Your task to perform on an android device: Open Chrome and go to the settings page Image 0: 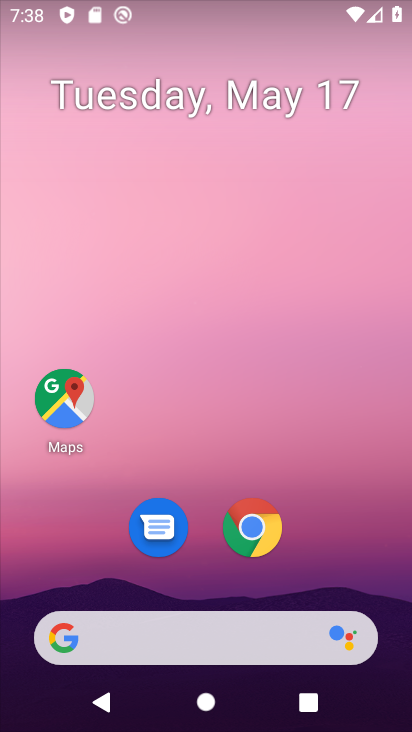
Step 0: drag from (249, 646) to (241, 128)
Your task to perform on an android device: Open Chrome and go to the settings page Image 1: 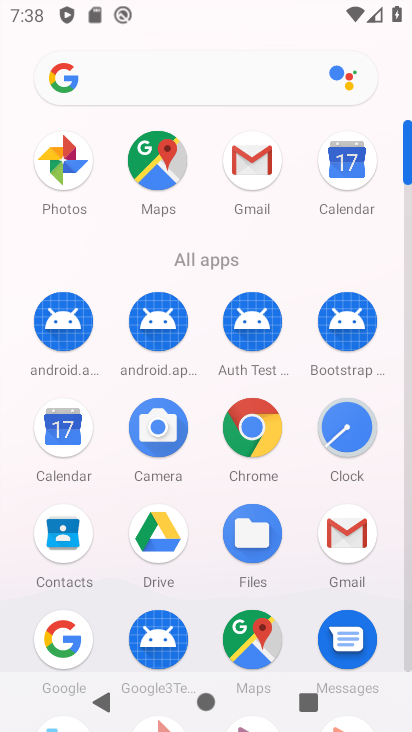
Step 1: click (243, 419)
Your task to perform on an android device: Open Chrome and go to the settings page Image 2: 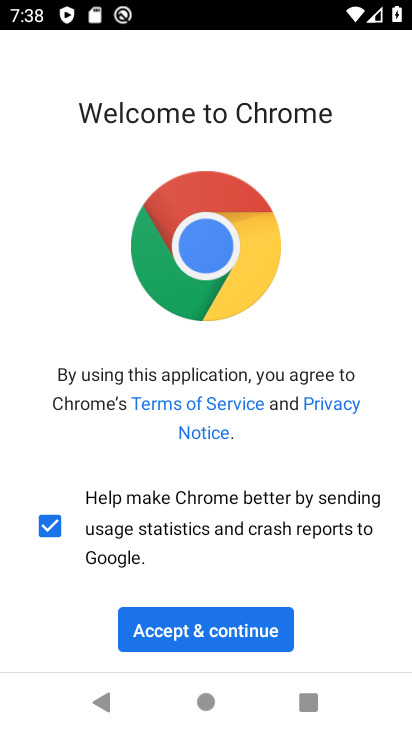
Step 2: click (159, 614)
Your task to perform on an android device: Open Chrome and go to the settings page Image 3: 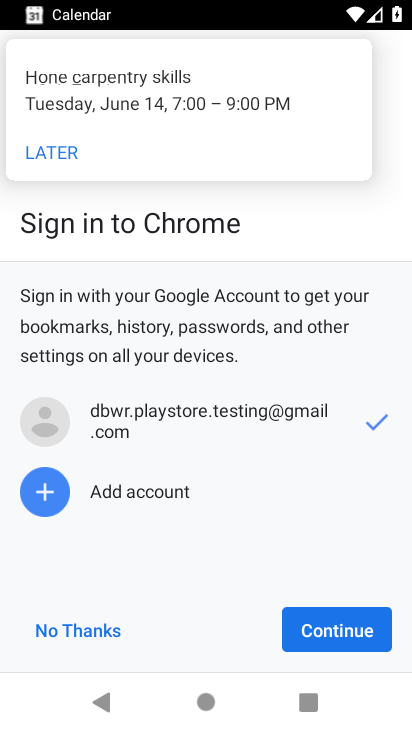
Step 3: click (328, 616)
Your task to perform on an android device: Open Chrome and go to the settings page Image 4: 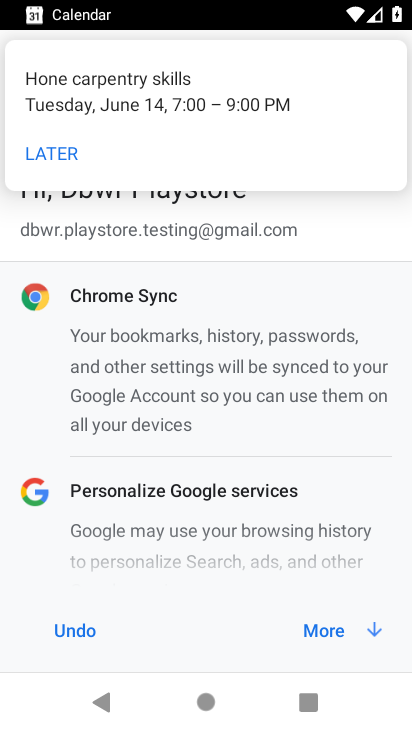
Step 4: click (325, 616)
Your task to perform on an android device: Open Chrome and go to the settings page Image 5: 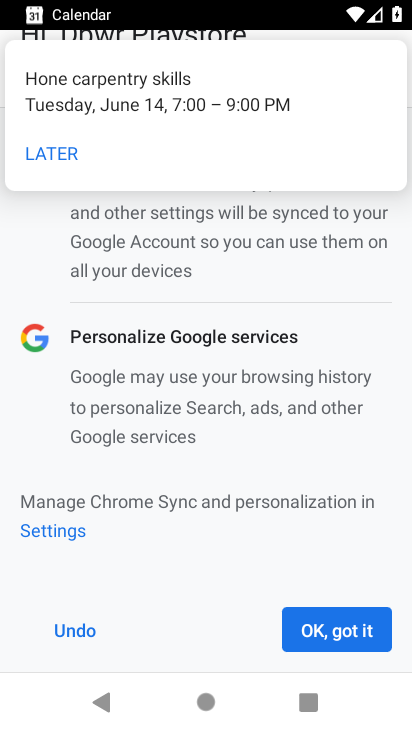
Step 5: click (377, 614)
Your task to perform on an android device: Open Chrome and go to the settings page Image 6: 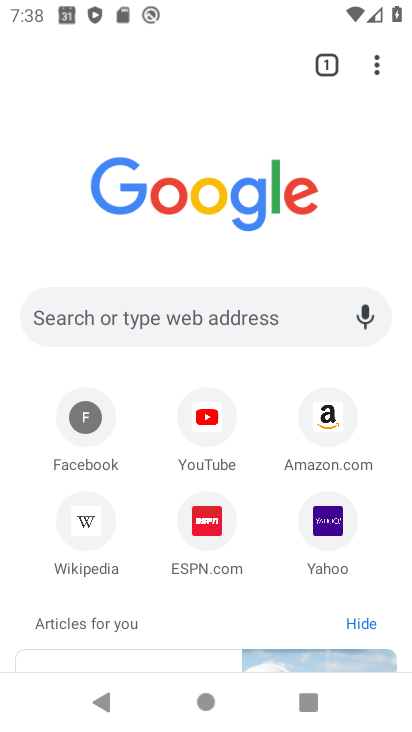
Step 6: click (365, 81)
Your task to perform on an android device: Open Chrome and go to the settings page Image 7: 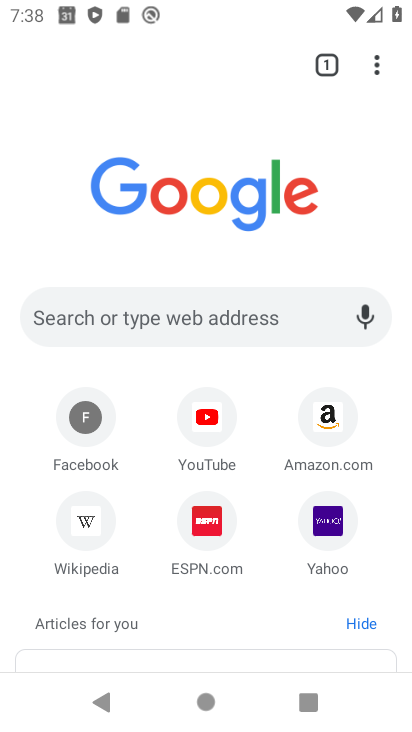
Step 7: click (375, 79)
Your task to perform on an android device: Open Chrome and go to the settings page Image 8: 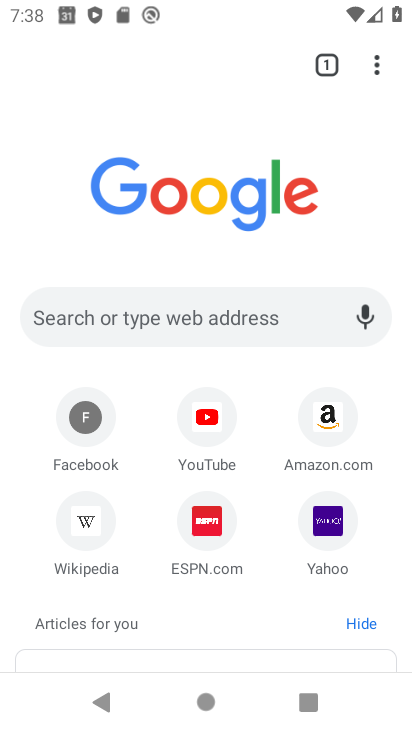
Step 8: click (366, 71)
Your task to perform on an android device: Open Chrome and go to the settings page Image 9: 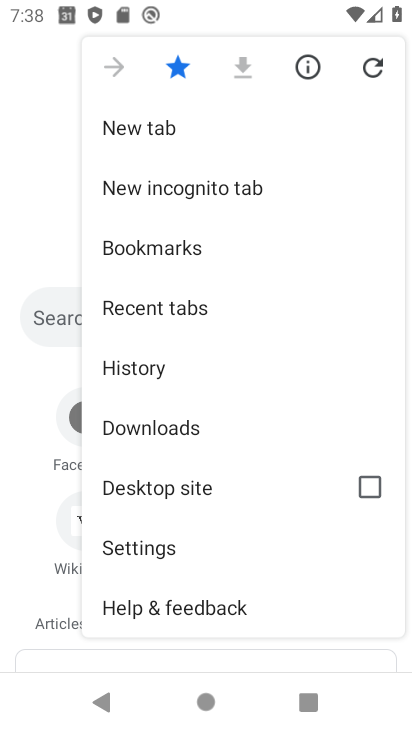
Step 9: drag from (241, 526) to (247, 420)
Your task to perform on an android device: Open Chrome and go to the settings page Image 10: 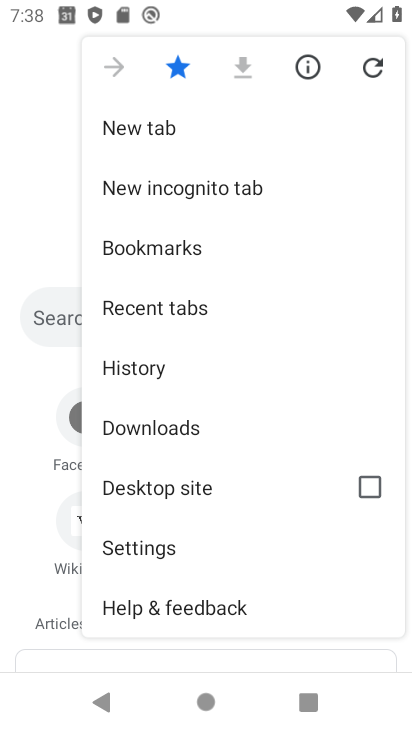
Step 10: click (171, 547)
Your task to perform on an android device: Open Chrome and go to the settings page Image 11: 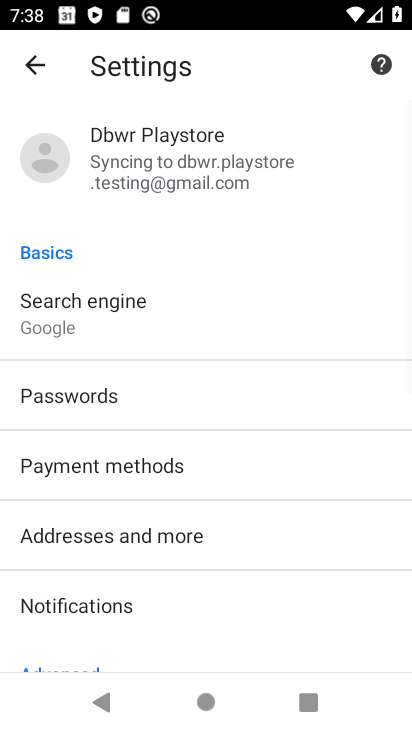
Step 11: task complete